Your task to perform on an android device: clear history in the chrome app Image 0: 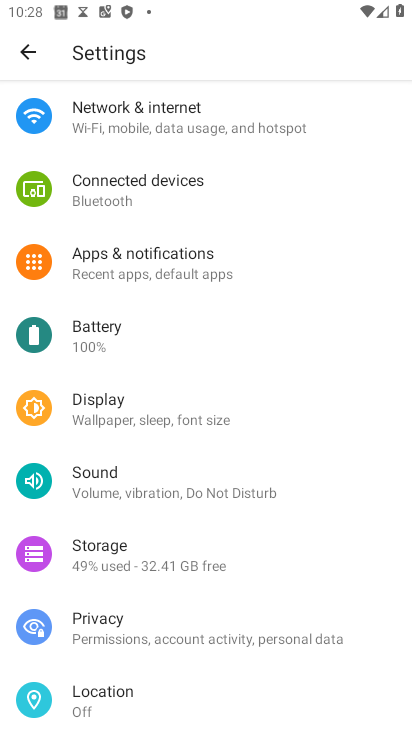
Step 0: press home button
Your task to perform on an android device: clear history in the chrome app Image 1: 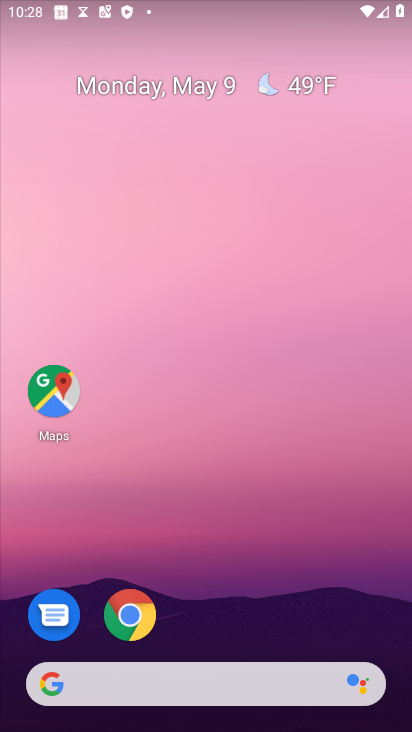
Step 1: click (141, 615)
Your task to perform on an android device: clear history in the chrome app Image 2: 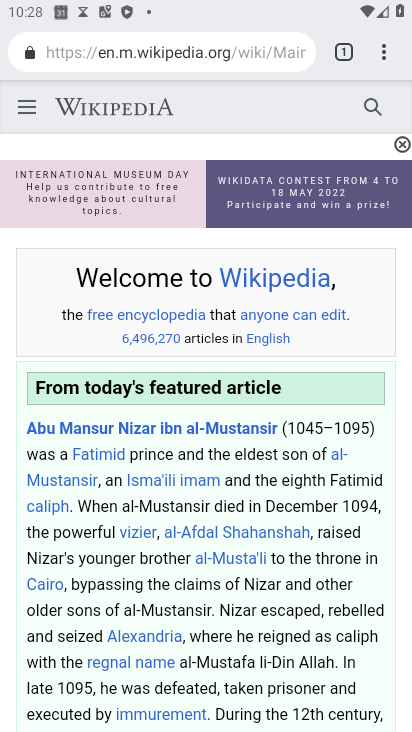
Step 2: drag from (385, 57) to (280, 365)
Your task to perform on an android device: clear history in the chrome app Image 3: 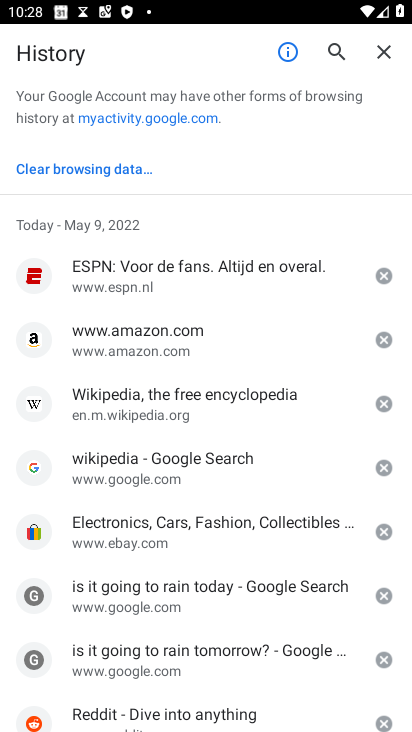
Step 3: click (74, 157)
Your task to perform on an android device: clear history in the chrome app Image 4: 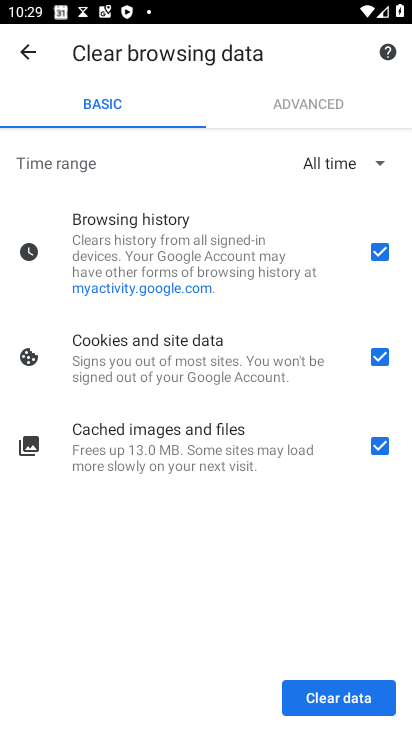
Step 4: click (387, 358)
Your task to perform on an android device: clear history in the chrome app Image 5: 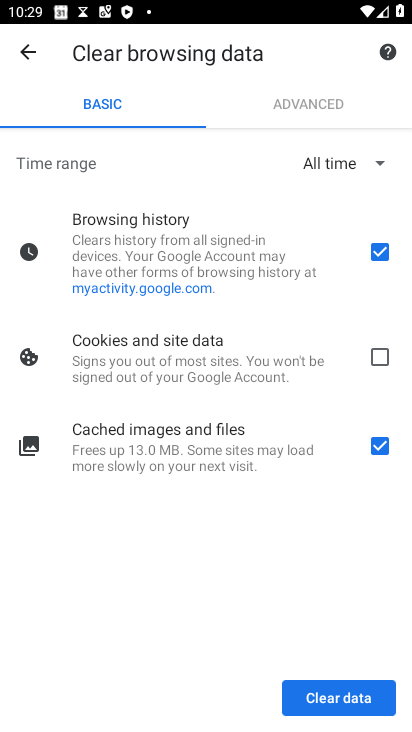
Step 5: click (377, 443)
Your task to perform on an android device: clear history in the chrome app Image 6: 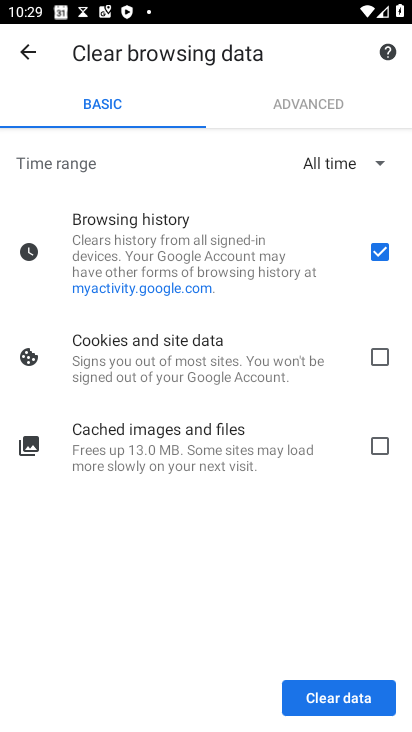
Step 6: click (358, 713)
Your task to perform on an android device: clear history in the chrome app Image 7: 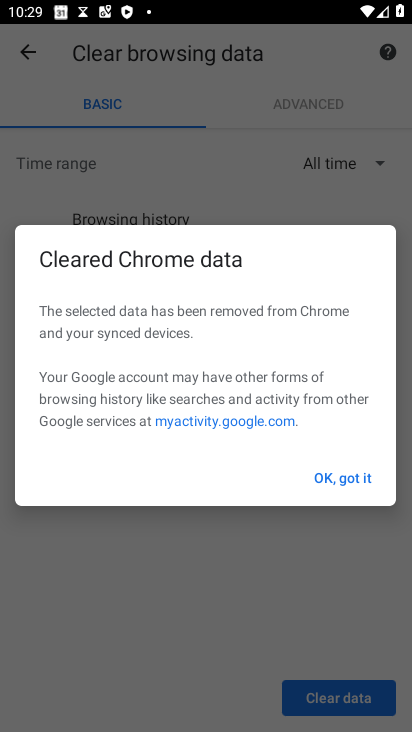
Step 7: click (350, 480)
Your task to perform on an android device: clear history in the chrome app Image 8: 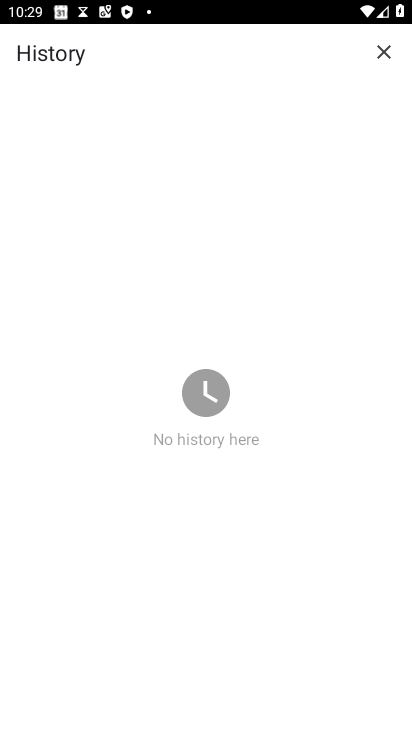
Step 8: task complete